Your task to perform on an android device: Open the stopwatch Image 0: 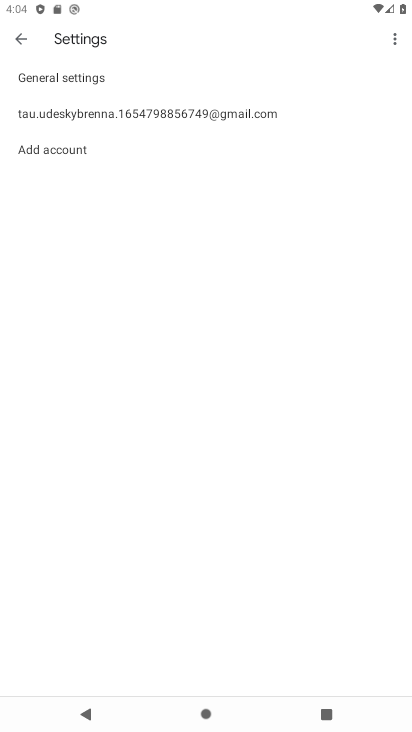
Step 0: press home button
Your task to perform on an android device: Open the stopwatch Image 1: 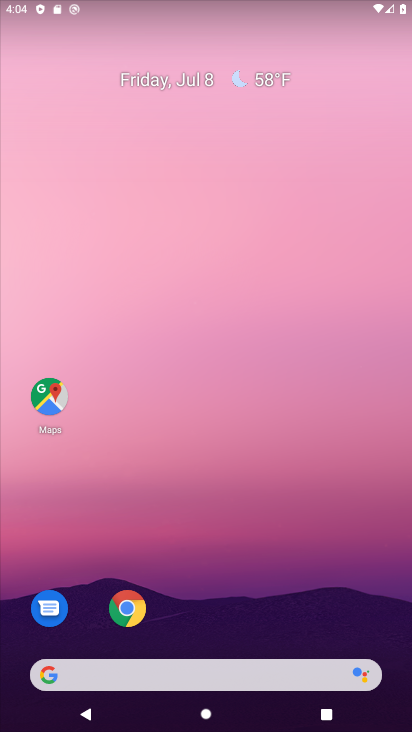
Step 1: drag from (246, 546) to (358, 74)
Your task to perform on an android device: Open the stopwatch Image 2: 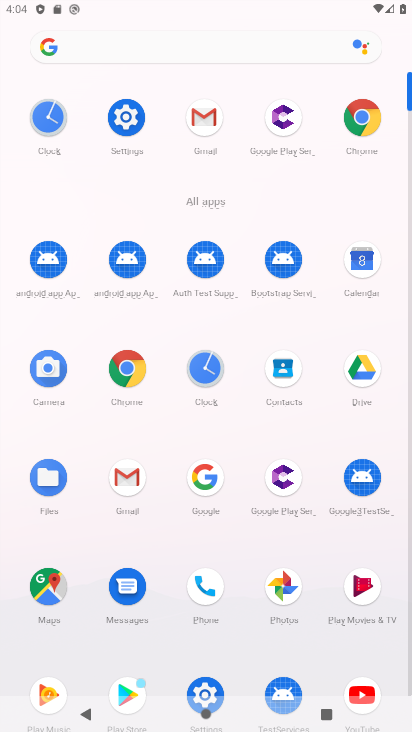
Step 2: click (44, 117)
Your task to perform on an android device: Open the stopwatch Image 3: 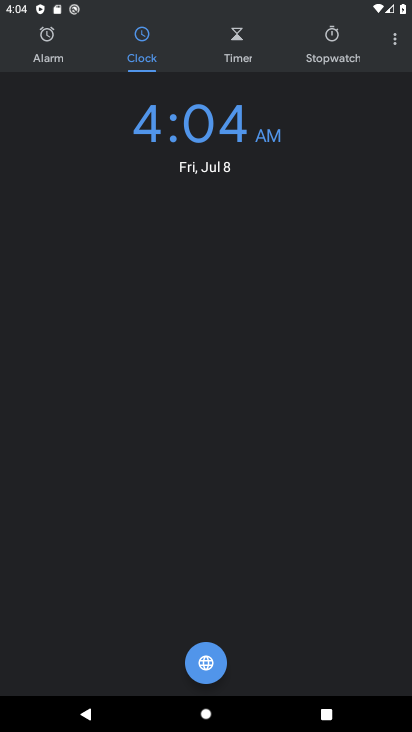
Step 3: click (321, 57)
Your task to perform on an android device: Open the stopwatch Image 4: 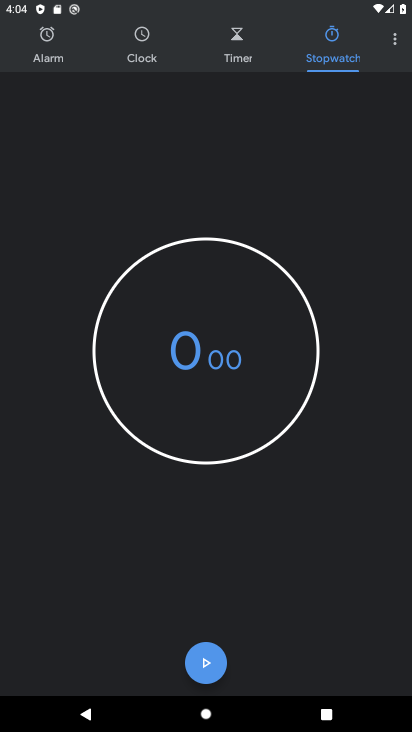
Step 4: click (202, 665)
Your task to perform on an android device: Open the stopwatch Image 5: 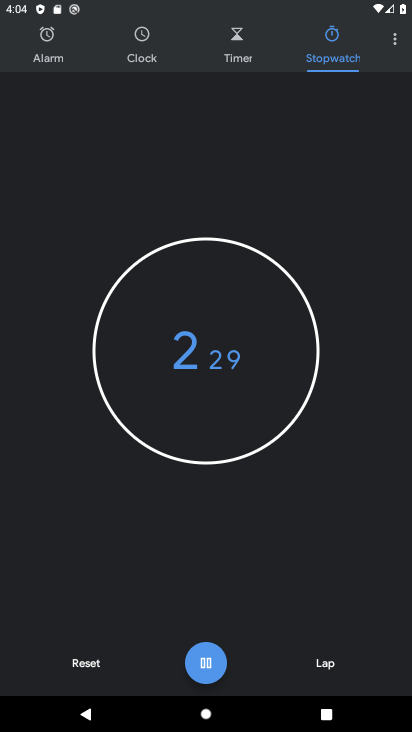
Step 5: task complete